Your task to perform on an android device: change keyboard looks Image 0: 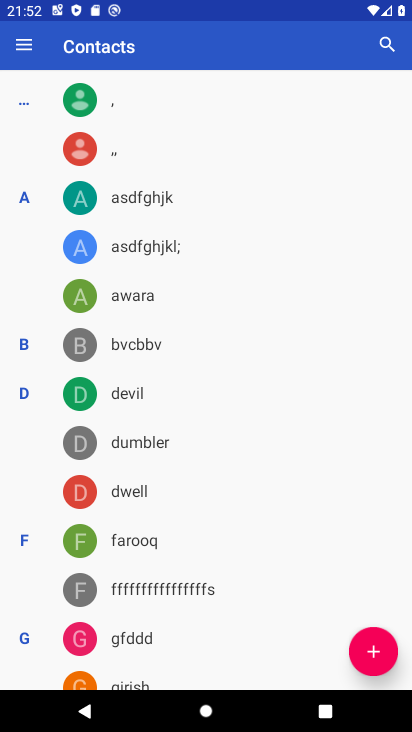
Step 0: press home button
Your task to perform on an android device: change keyboard looks Image 1: 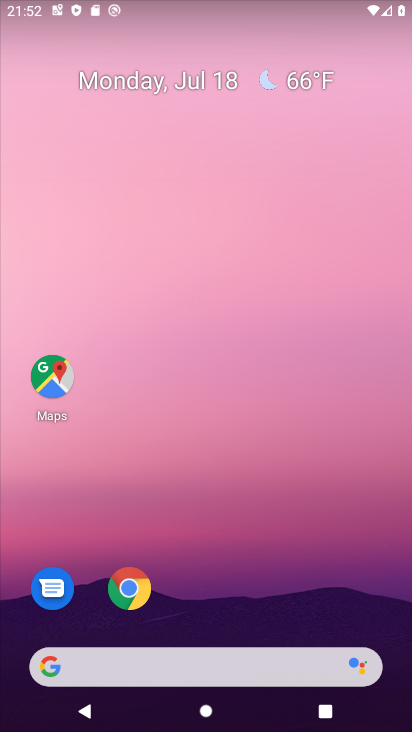
Step 1: drag from (182, 670) to (271, 39)
Your task to perform on an android device: change keyboard looks Image 2: 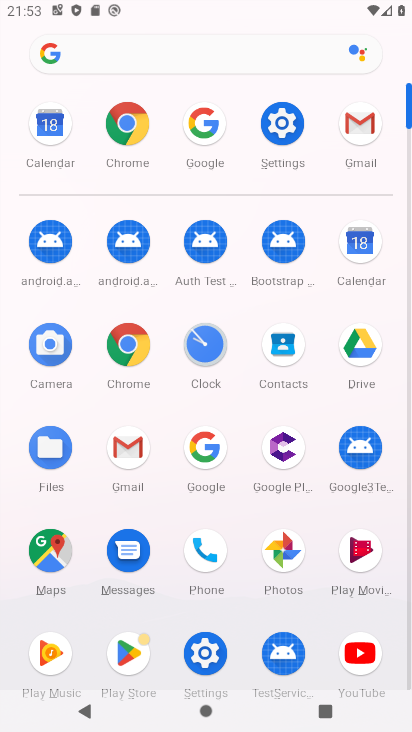
Step 2: click (282, 130)
Your task to perform on an android device: change keyboard looks Image 3: 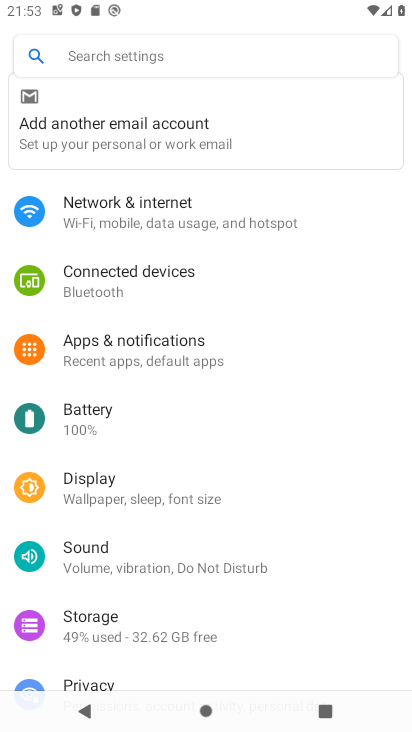
Step 3: drag from (294, 603) to (344, 190)
Your task to perform on an android device: change keyboard looks Image 4: 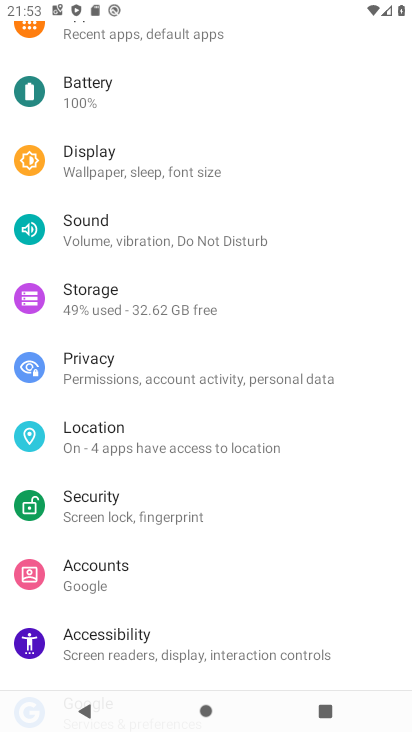
Step 4: drag from (266, 590) to (323, 84)
Your task to perform on an android device: change keyboard looks Image 5: 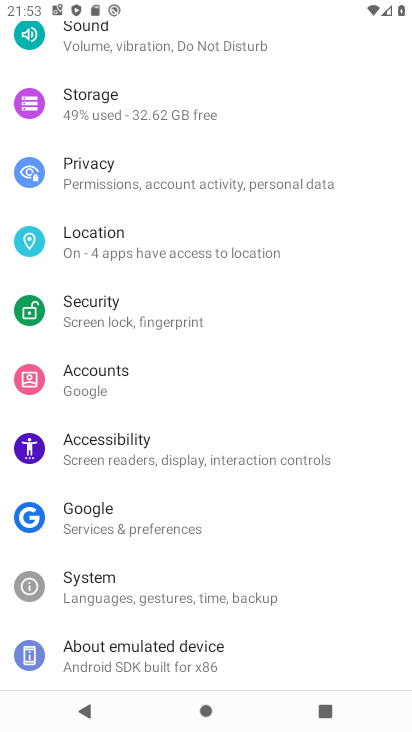
Step 5: click (115, 582)
Your task to perform on an android device: change keyboard looks Image 6: 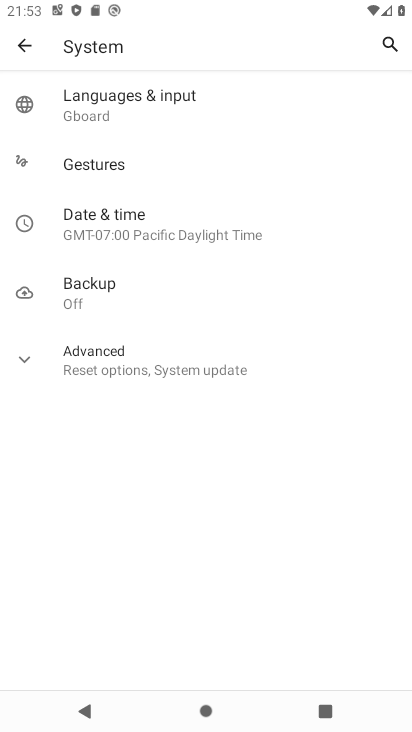
Step 6: click (114, 101)
Your task to perform on an android device: change keyboard looks Image 7: 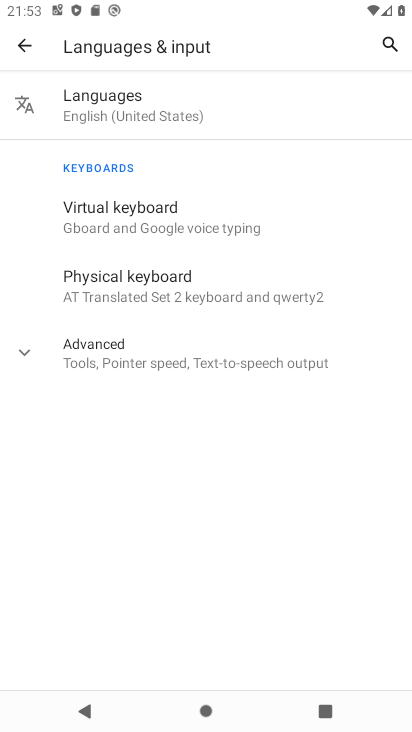
Step 7: click (110, 215)
Your task to perform on an android device: change keyboard looks Image 8: 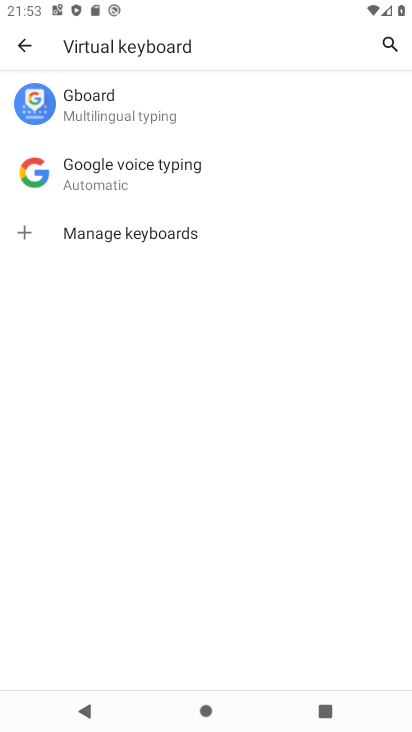
Step 8: click (106, 104)
Your task to perform on an android device: change keyboard looks Image 9: 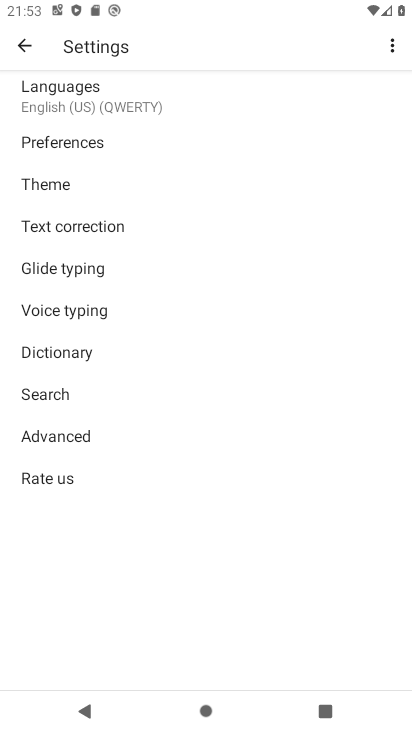
Step 9: click (65, 188)
Your task to perform on an android device: change keyboard looks Image 10: 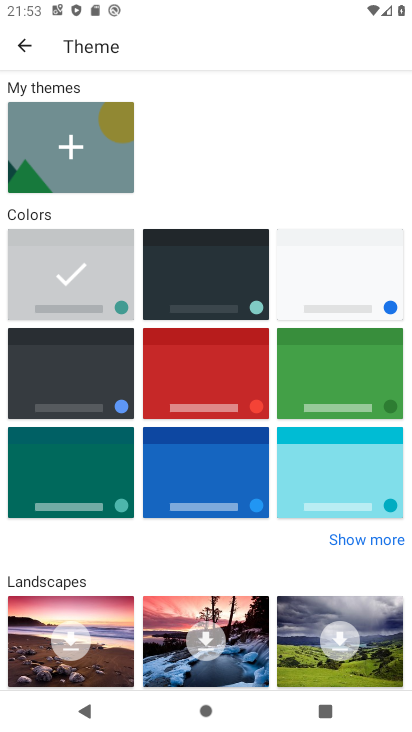
Step 10: click (219, 365)
Your task to perform on an android device: change keyboard looks Image 11: 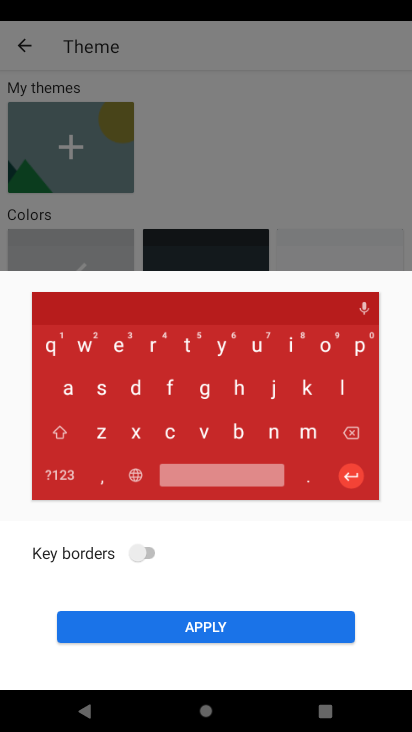
Step 11: click (219, 631)
Your task to perform on an android device: change keyboard looks Image 12: 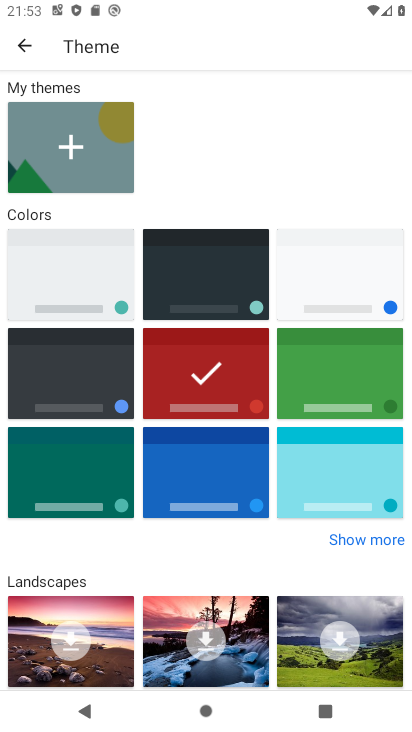
Step 12: task complete